Your task to perform on an android device: create a new album in the google photos Image 0: 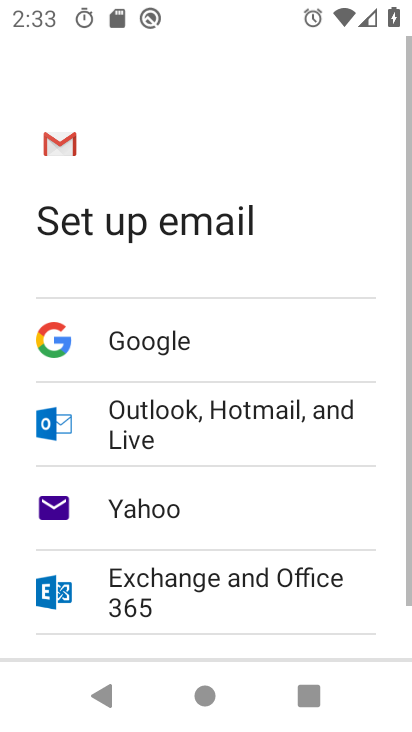
Step 0: press home button
Your task to perform on an android device: create a new album in the google photos Image 1: 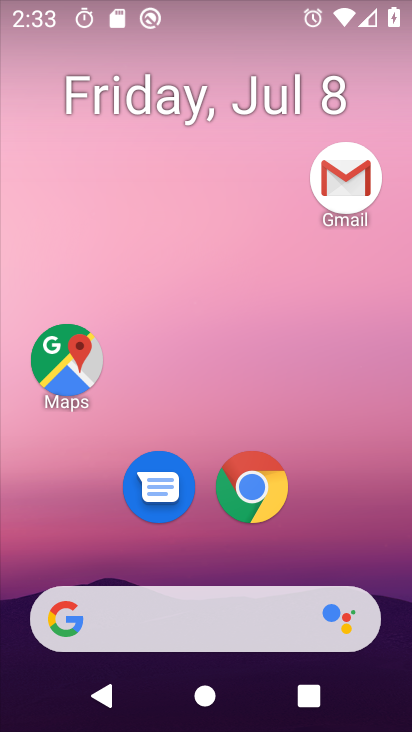
Step 1: drag from (351, 545) to (353, 150)
Your task to perform on an android device: create a new album in the google photos Image 2: 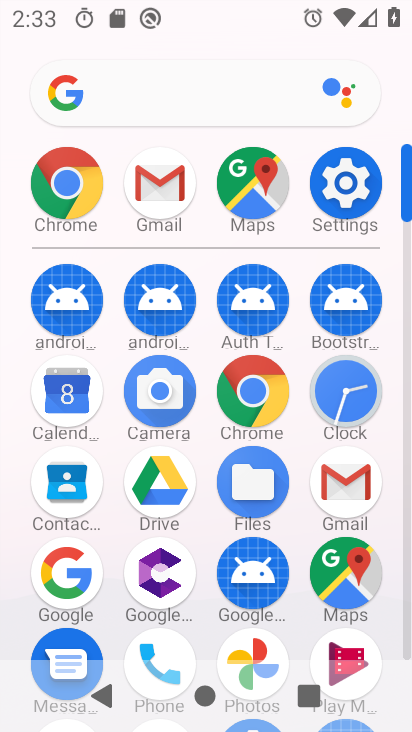
Step 2: drag from (390, 524) to (383, 339)
Your task to perform on an android device: create a new album in the google photos Image 3: 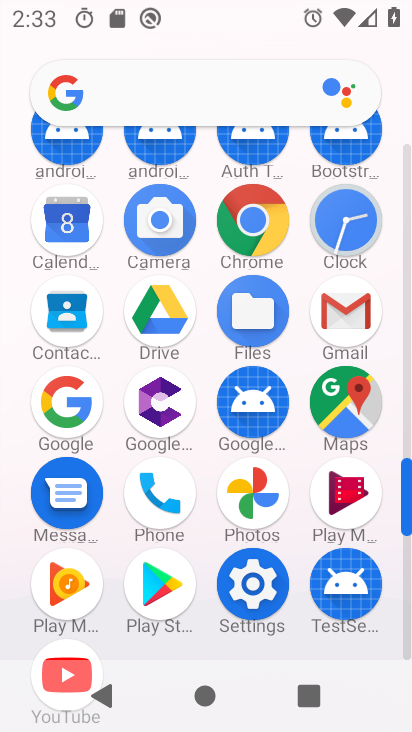
Step 3: click (258, 498)
Your task to perform on an android device: create a new album in the google photos Image 4: 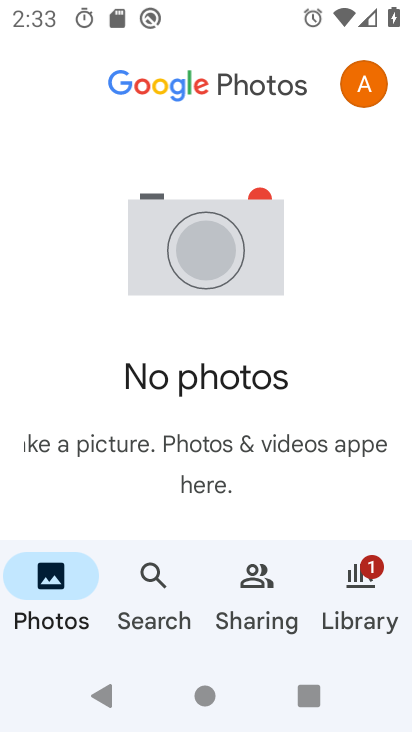
Step 4: click (355, 581)
Your task to perform on an android device: create a new album in the google photos Image 5: 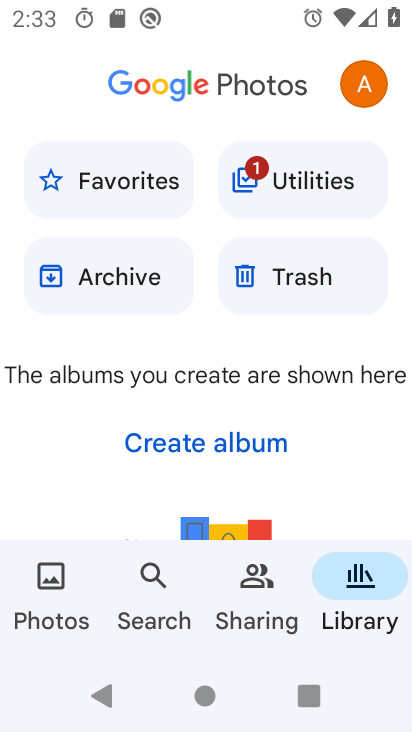
Step 5: click (243, 449)
Your task to perform on an android device: create a new album in the google photos Image 6: 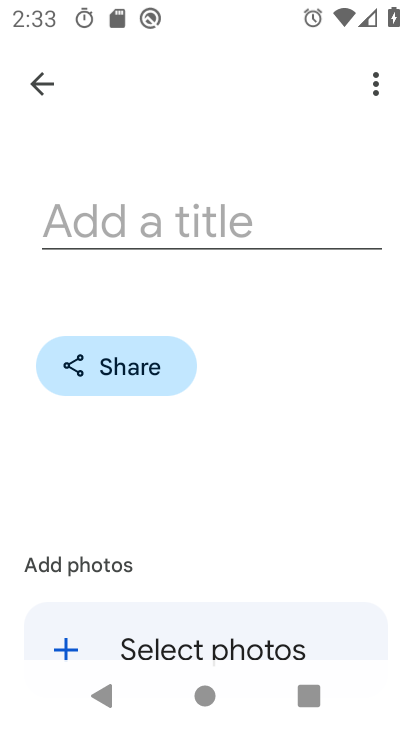
Step 6: click (198, 231)
Your task to perform on an android device: create a new album in the google photos Image 7: 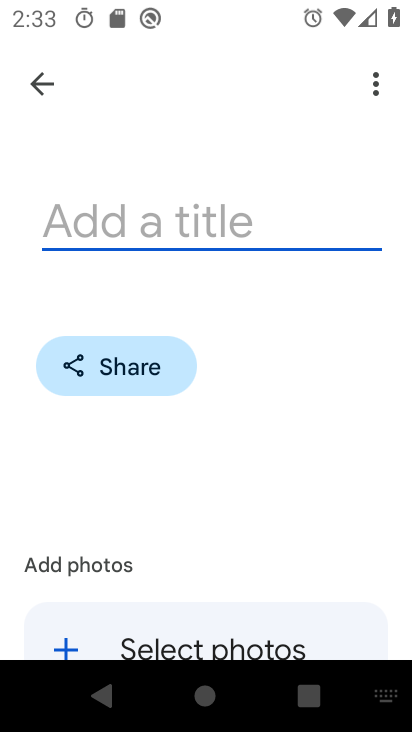
Step 7: type "fav"
Your task to perform on an android device: create a new album in the google photos Image 8: 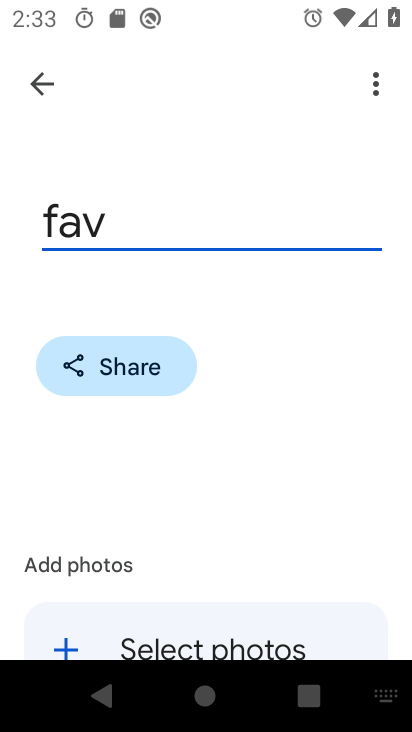
Step 8: drag from (288, 449) to (269, 296)
Your task to perform on an android device: create a new album in the google photos Image 9: 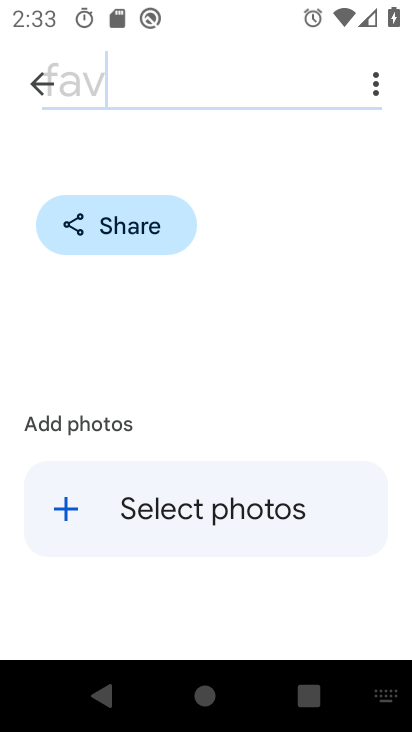
Step 9: click (130, 524)
Your task to perform on an android device: create a new album in the google photos Image 10: 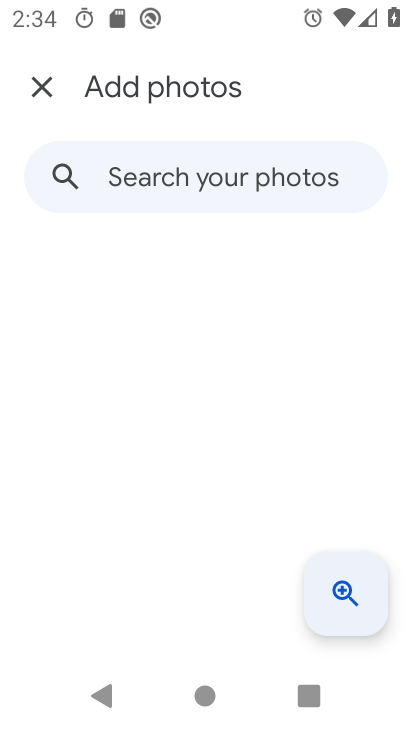
Step 10: task complete